Your task to perform on an android device: toggle notifications settings in the gmail app Image 0: 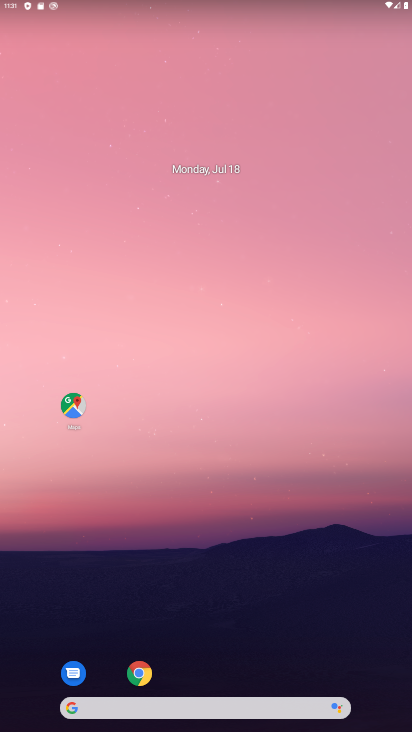
Step 0: drag from (254, 691) to (283, 192)
Your task to perform on an android device: toggle notifications settings in the gmail app Image 1: 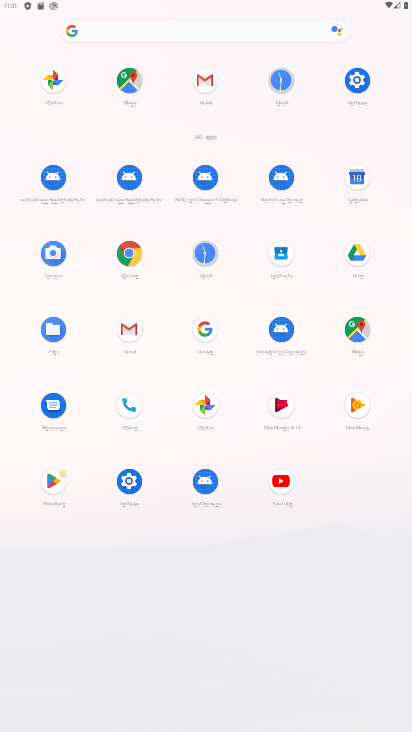
Step 1: click (122, 323)
Your task to perform on an android device: toggle notifications settings in the gmail app Image 2: 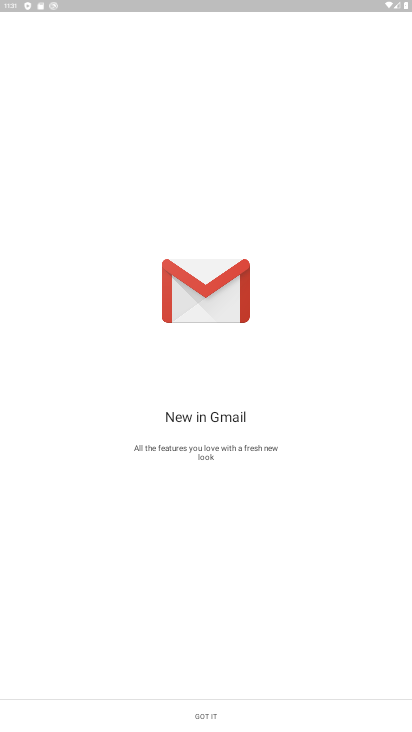
Step 2: click (211, 711)
Your task to perform on an android device: toggle notifications settings in the gmail app Image 3: 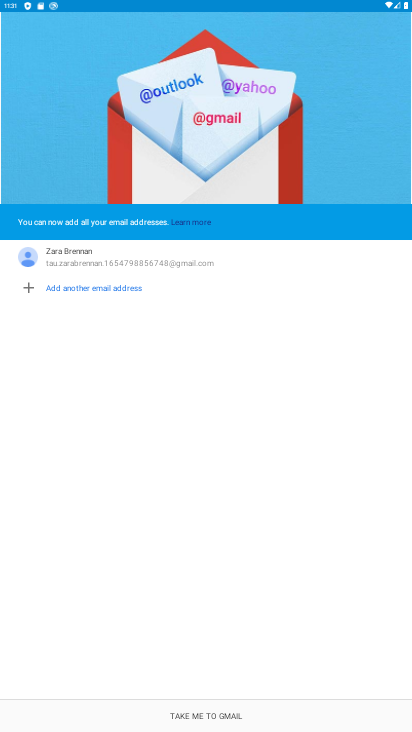
Step 3: click (211, 705)
Your task to perform on an android device: toggle notifications settings in the gmail app Image 4: 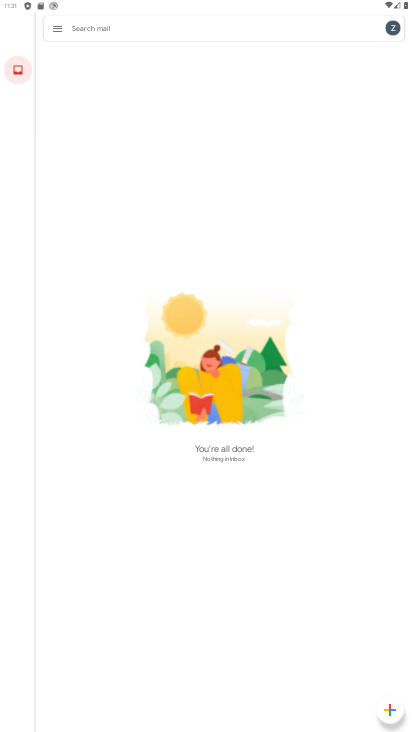
Step 4: click (54, 22)
Your task to perform on an android device: toggle notifications settings in the gmail app Image 5: 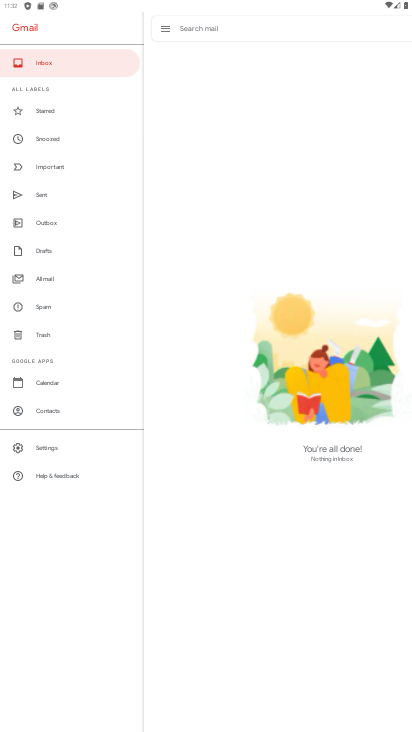
Step 5: click (36, 435)
Your task to perform on an android device: toggle notifications settings in the gmail app Image 6: 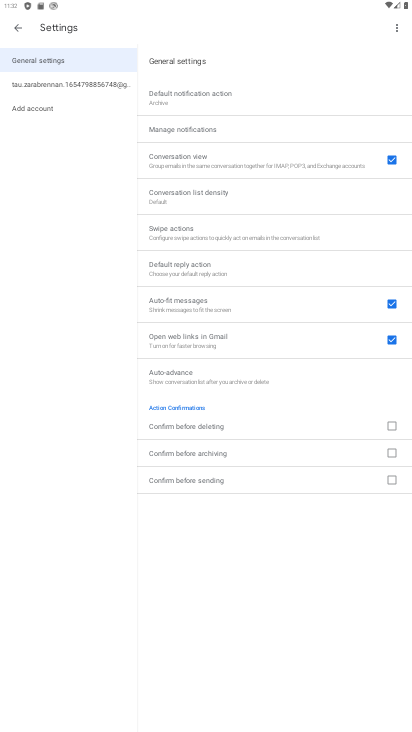
Step 6: click (270, 134)
Your task to perform on an android device: toggle notifications settings in the gmail app Image 7: 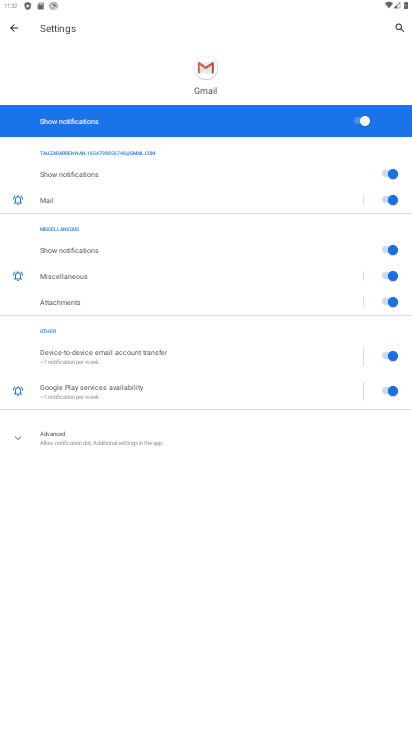
Step 7: click (364, 117)
Your task to perform on an android device: toggle notifications settings in the gmail app Image 8: 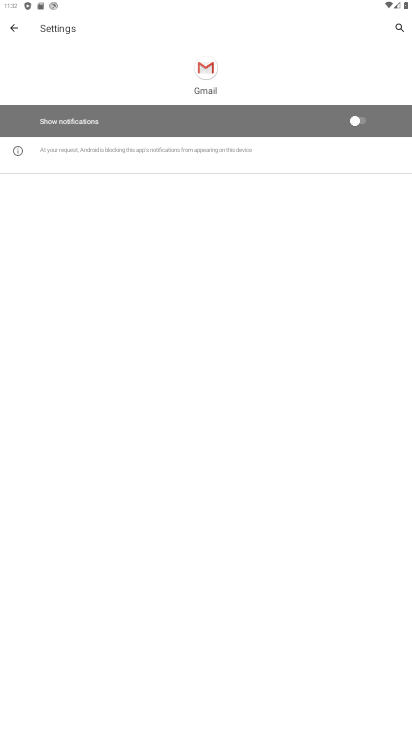
Step 8: task complete